Your task to perform on an android device: open chrome privacy settings Image 0: 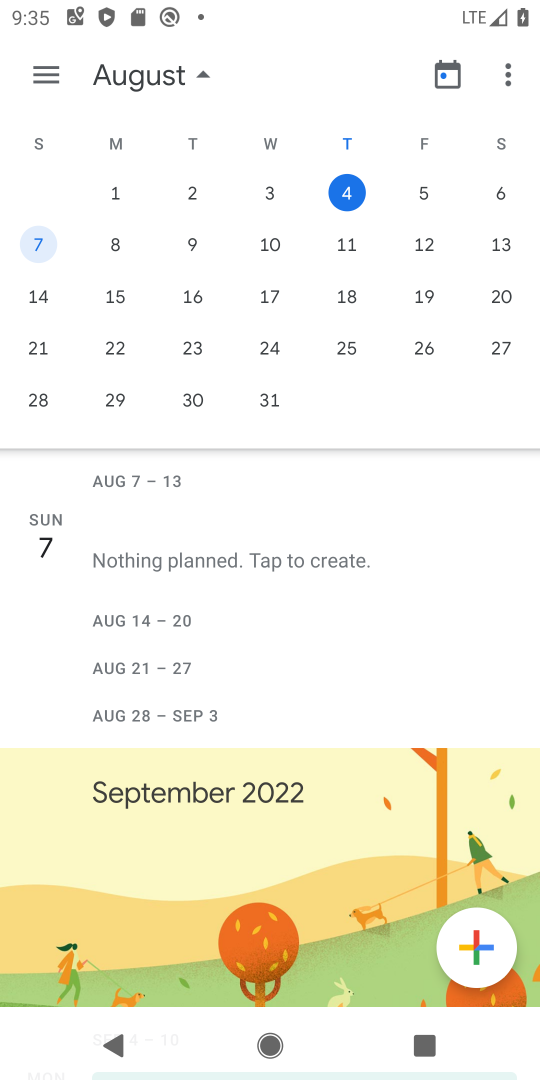
Step 0: press home button
Your task to perform on an android device: open chrome privacy settings Image 1: 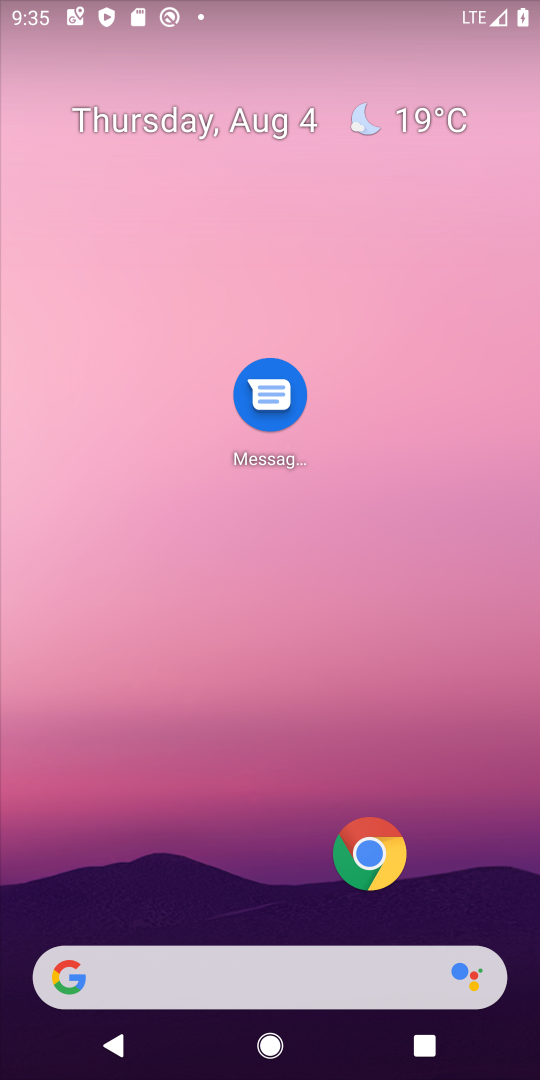
Step 1: click (348, 851)
Your task to perform on an android device: open chrome privacy settings Image 2: 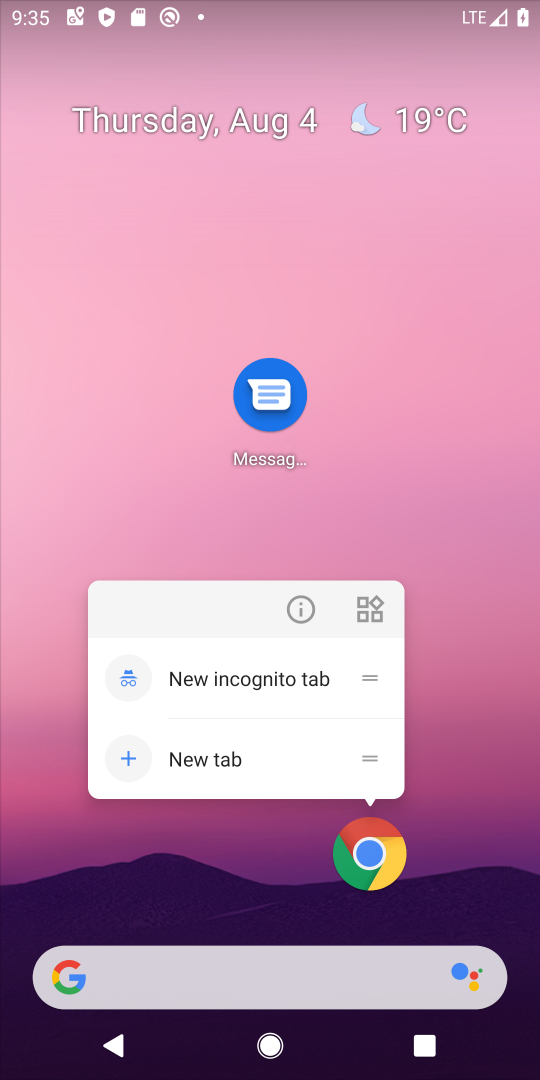
Step 2: click (361, 854)
Your task to perform on an android device: open chrome privacy settings Image 3: 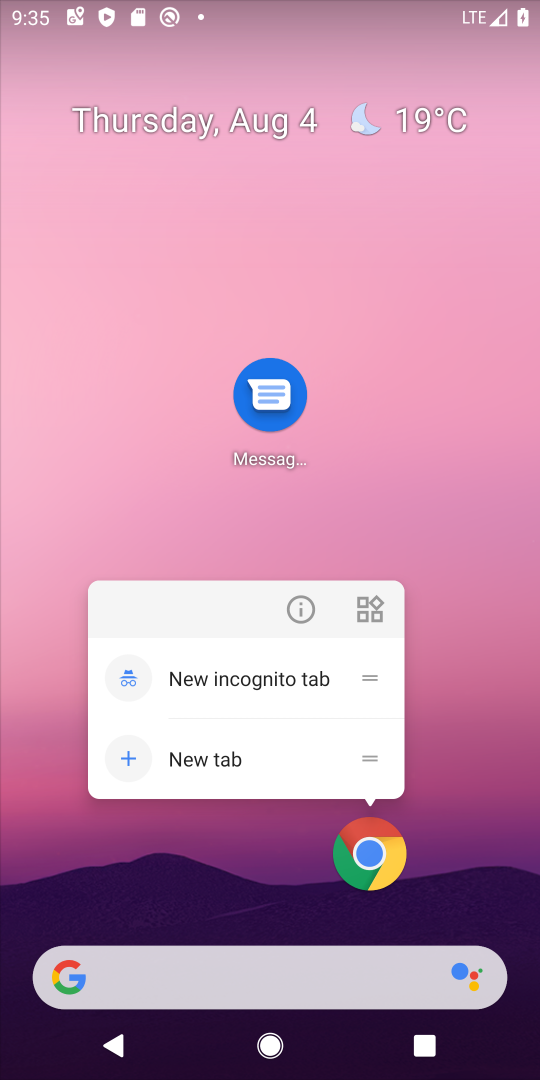
Step 3: click (365, 860)
Your task to perform on an android device: open chrome privacy settings Image 4: 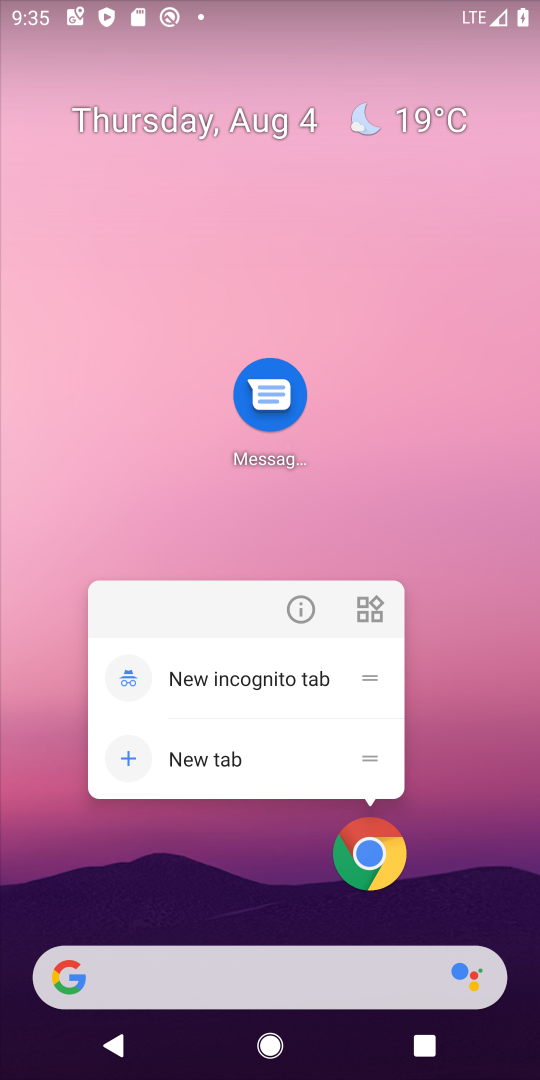
Step 4: click (366, 861)
Your task to perform on an android device: open chrome privacy settings Image 5: 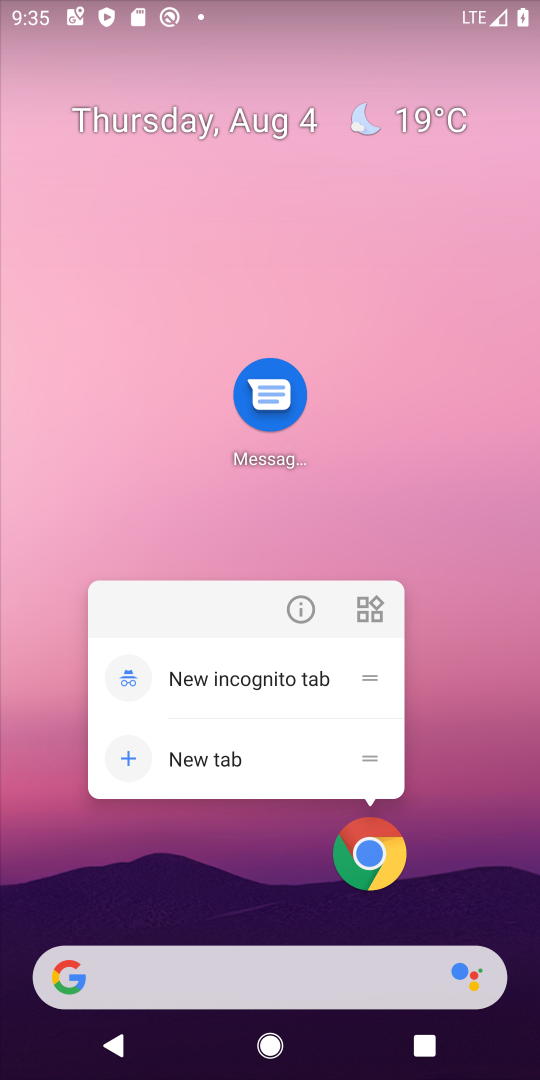
Step 5: click (373, 847)
Your task to perform on an android device: open chrome privacy settings Image 6: 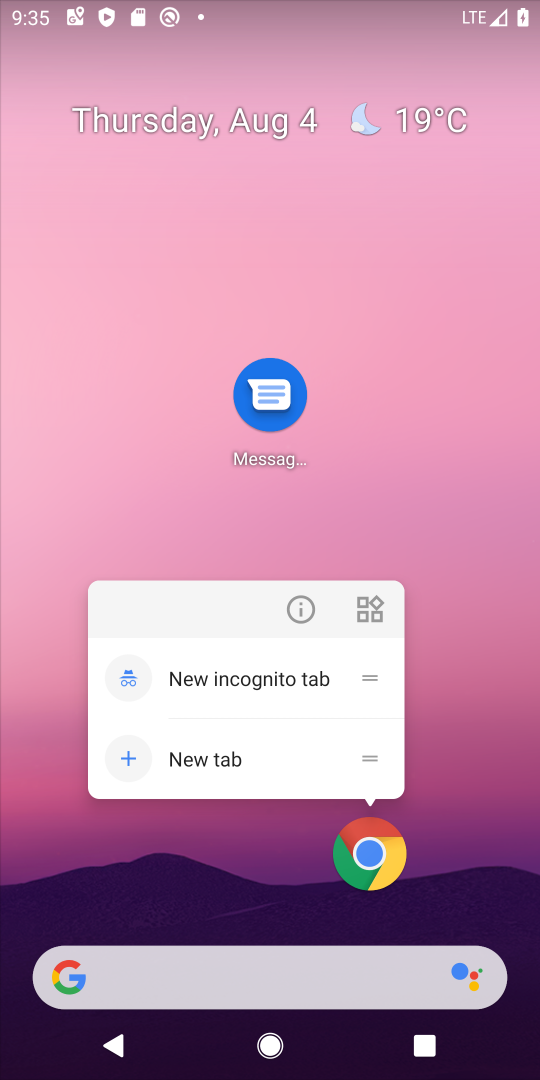
Step 6: click (373, 847)
Your task to perform on an android device: open chrome privacy settings Image 7: 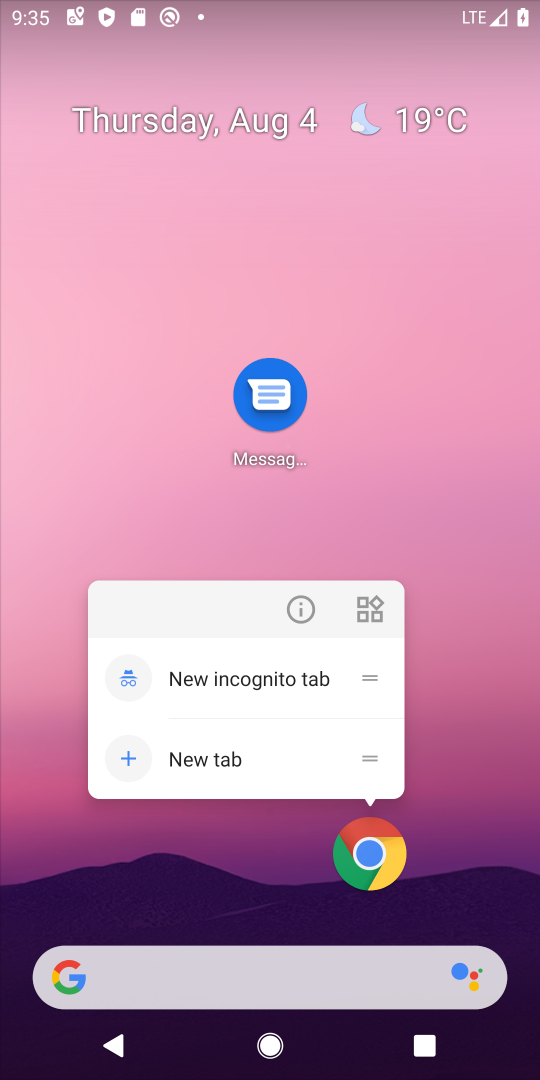
Step 7: click (381, 864)
Your task to perform on an android device: open chrome privacy settings Image 8: 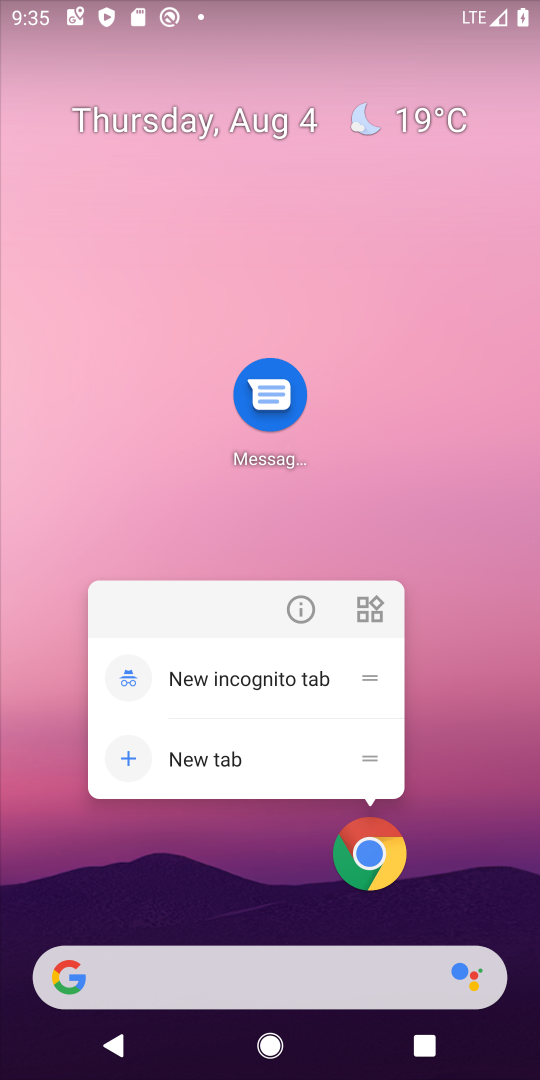
Step 8: click (365, 856)
Your task to perform on an android device: open chrome privacy settings Image 9: 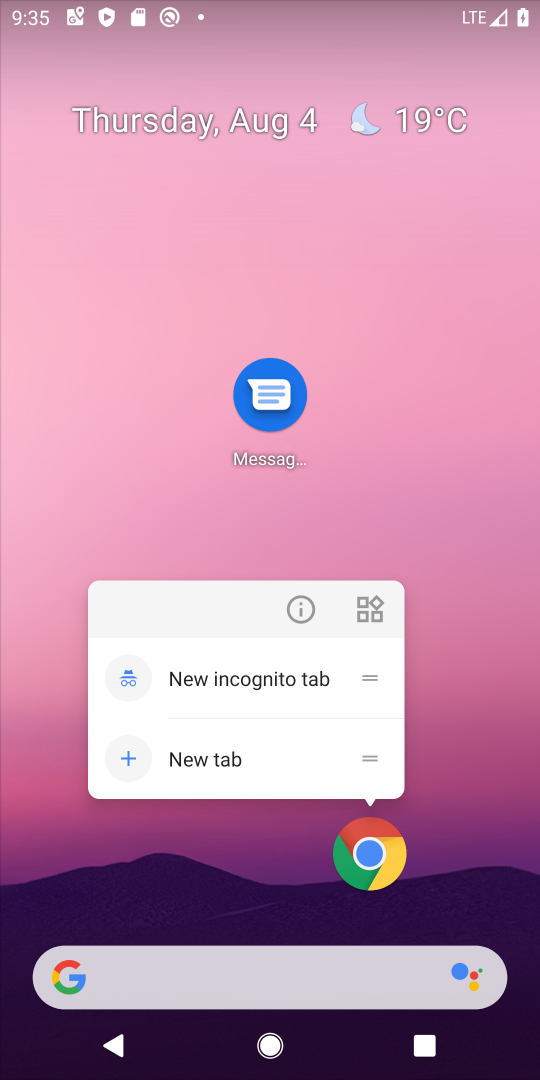
Step 9: click (360, 833)
Your task to perform on an android device: open chrome privacy settings Image 10: 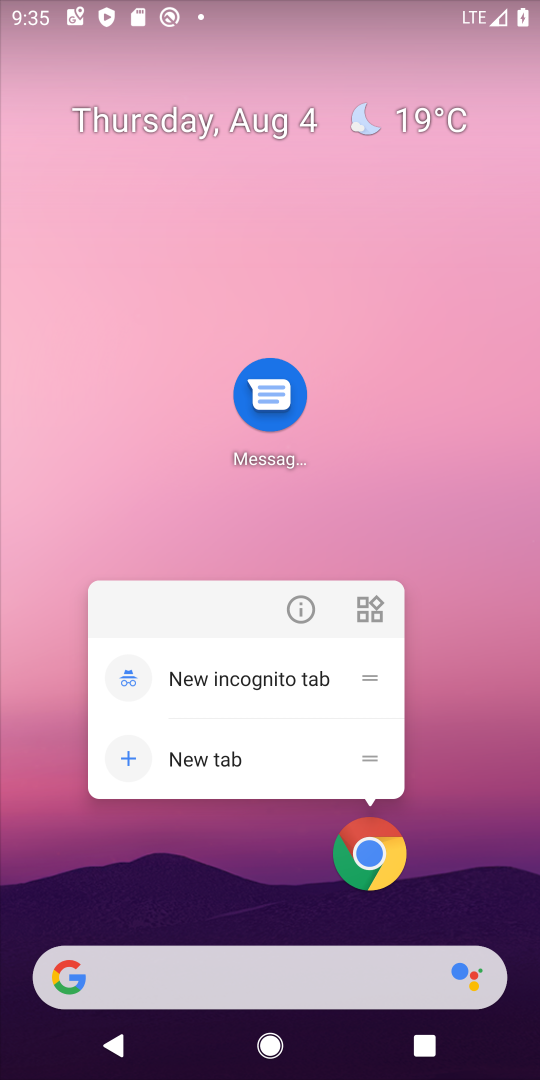
Step 10: click (371, 851)
Your task to perform on an android device: open chrome privacy settings Image 11: 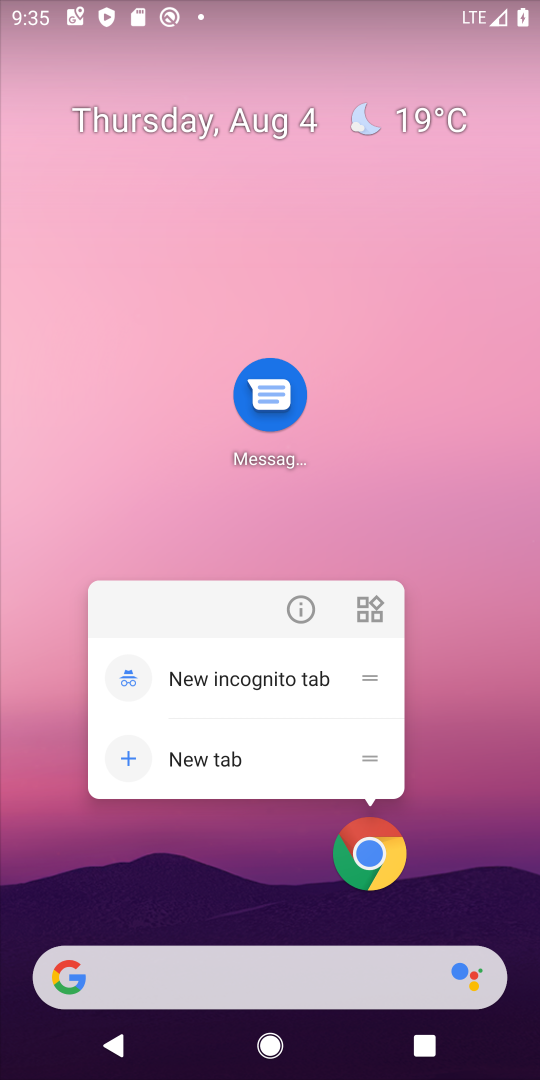
Step 11: click (375, 865)
Your task to perform on an android device: open chrome privacy settings Image 12: 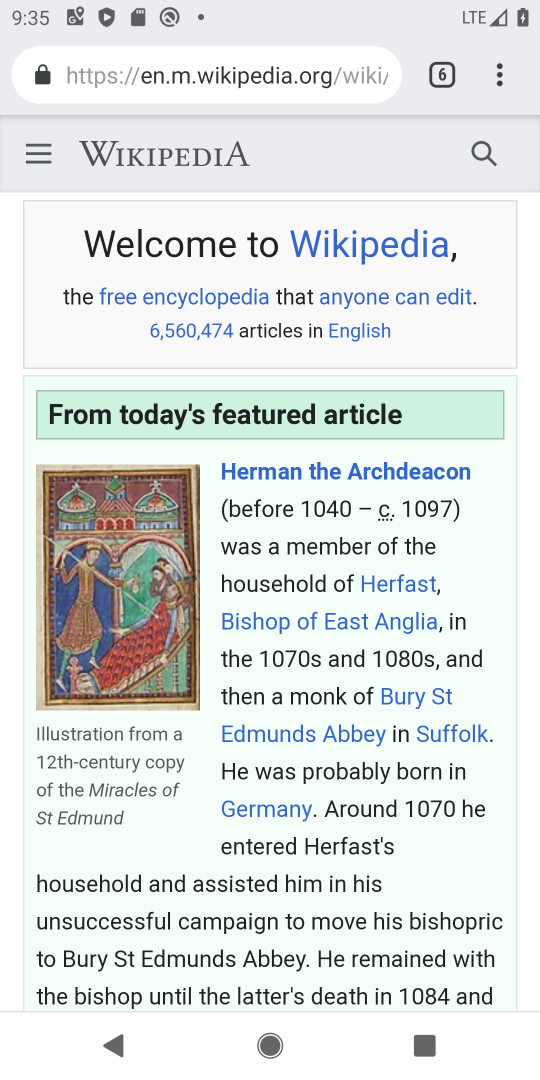
Step 12: click (485, 76)
Your task to perform on an android device: open chrome privacy settings Image 13: 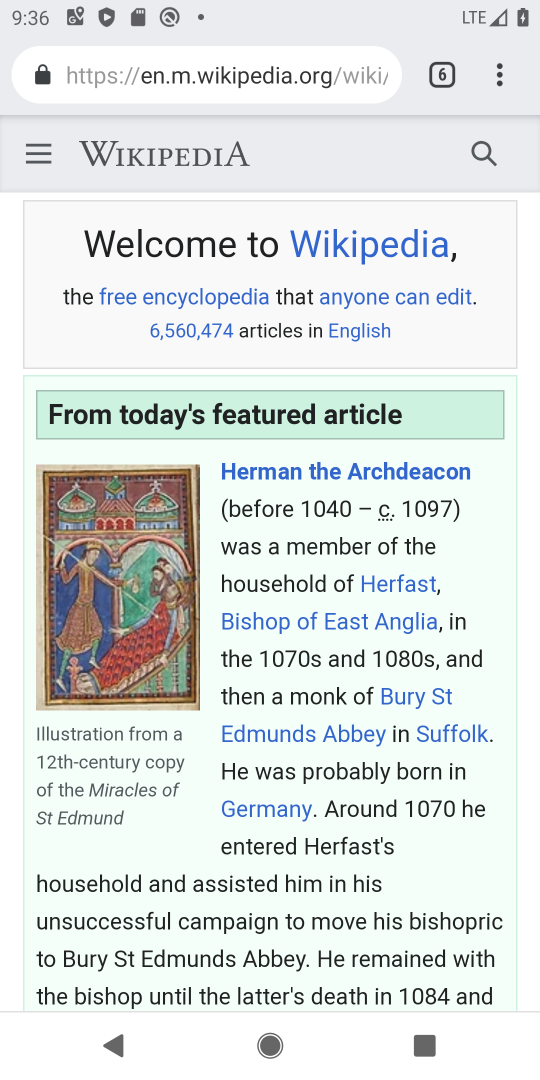
Step 13: click (483, 92)
Your task to perform on an android device: open chrome privacy settings Image 14: 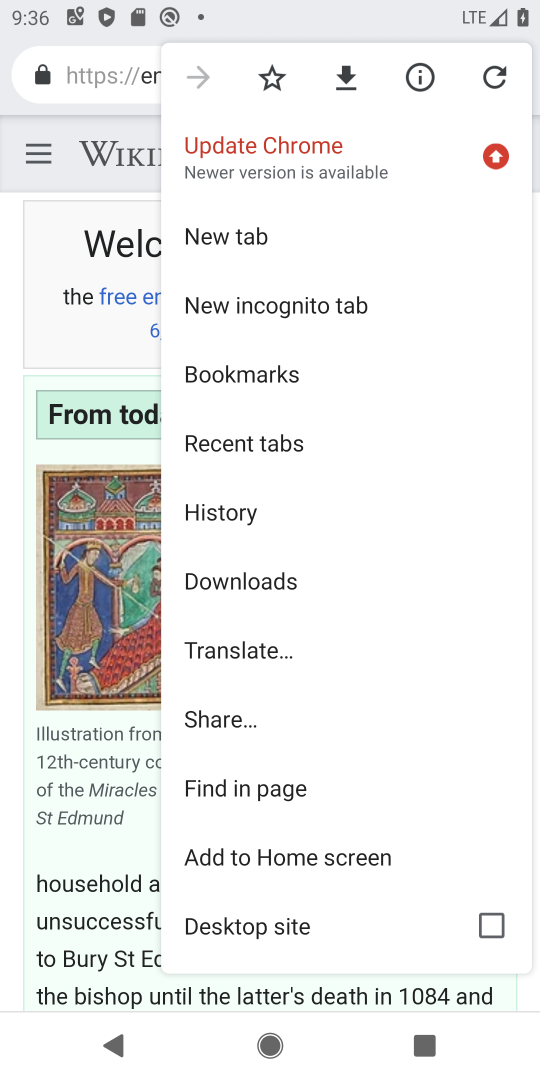
Step 14: drag from (228, 942) to (280, 352)
Your task to perform on an android device: open chrome privacy settings Image 15: 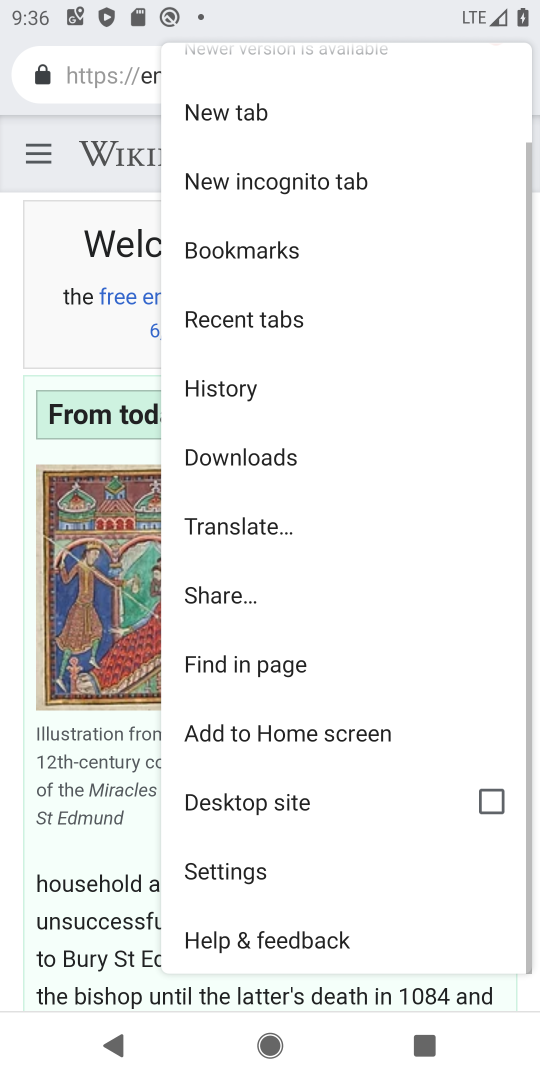
Step 15: click (234, 884)
Your task to perform on an android device: open chrome privacy settings Image 16: 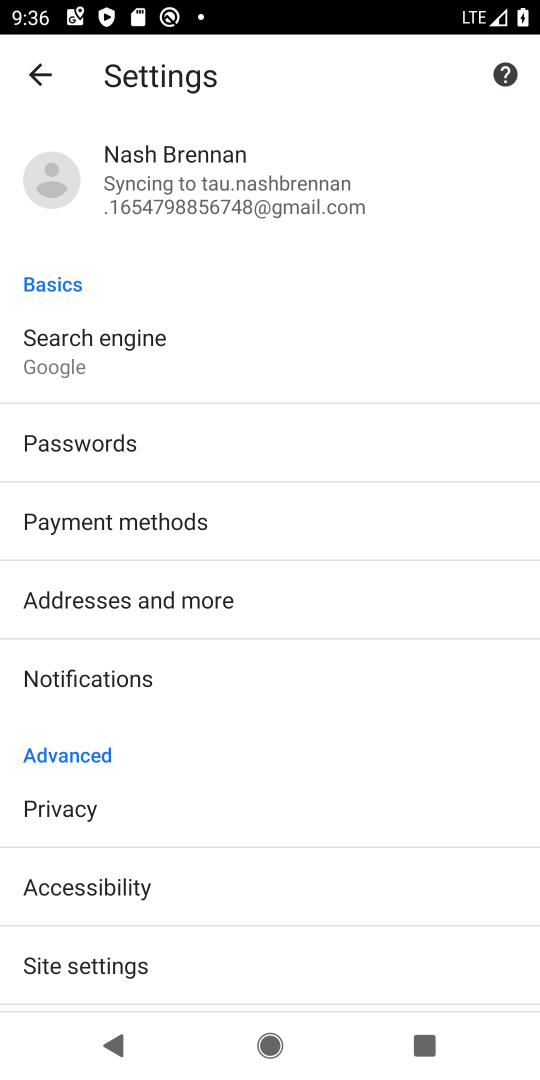
Step 16: click (110, 816)
Your task to perform on an android device: open chrome privacy settings Image 17: 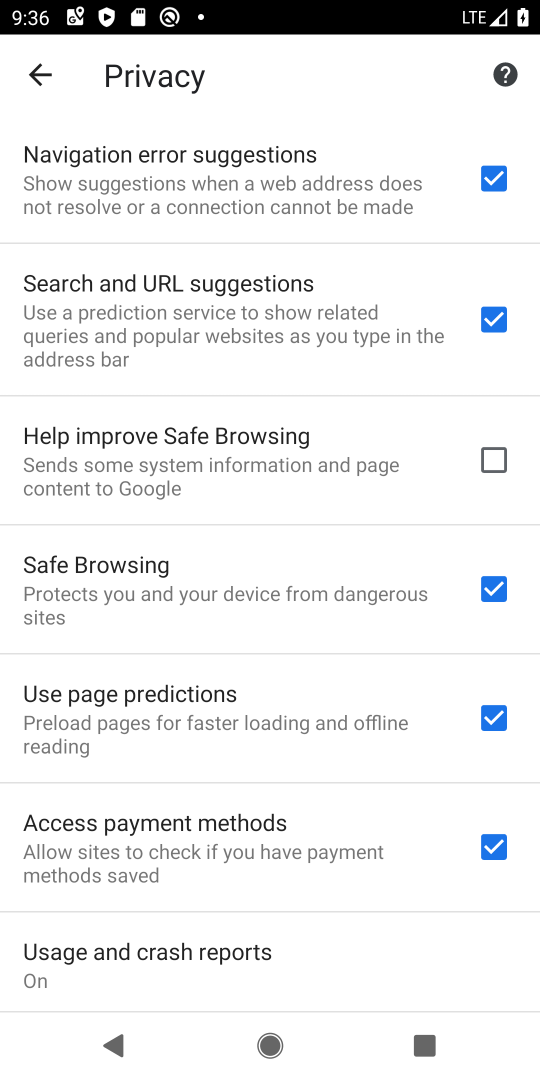
Step 17: task complete